Your task to perform on an android device: turn on airplane mode Image 0: 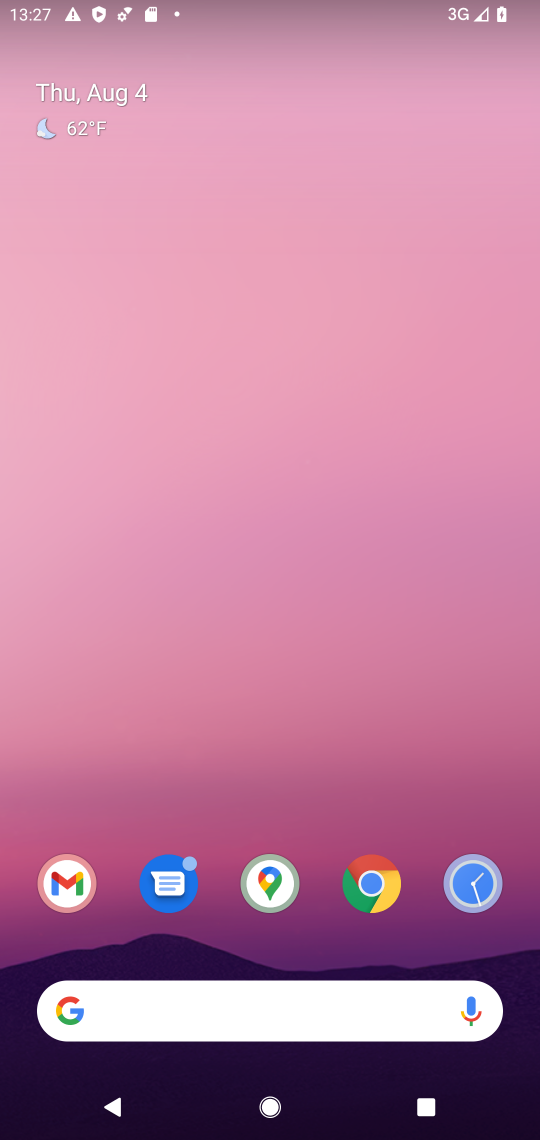
Step 0: drag from (288, 933) to (287, 131)
Your task to perform on an android device: turn on airplane mode Image 1: 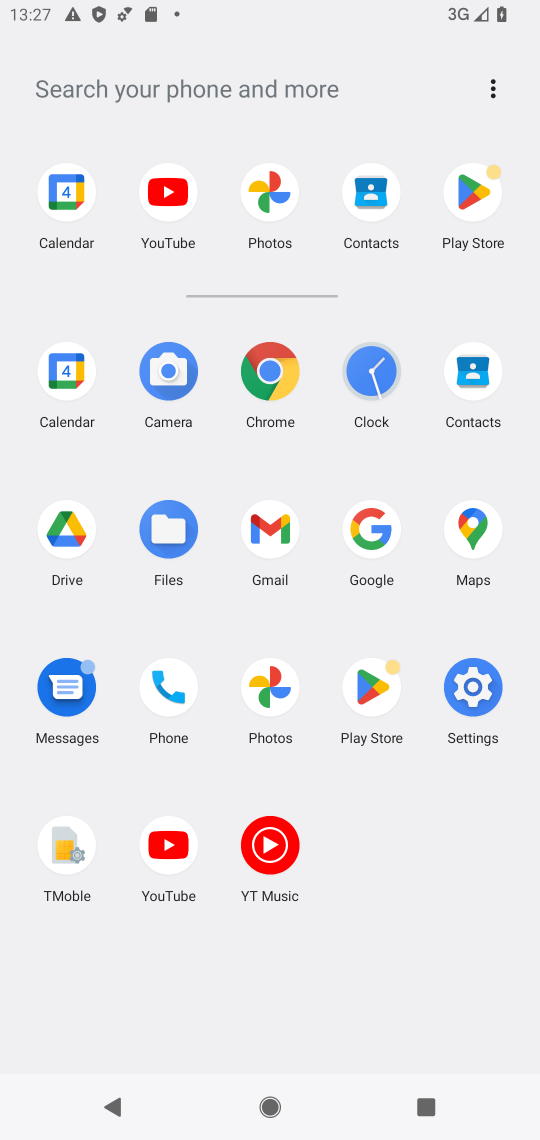
Step 1: click (462, 671)
Your task to perform on an android device: turn on airplane mode Image 2: 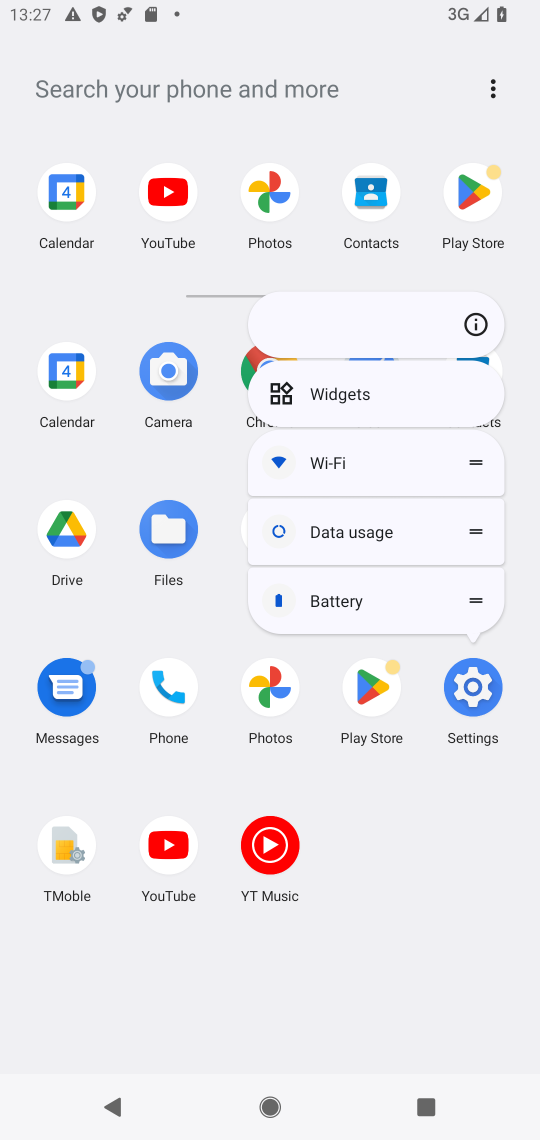
Step 2: click (478, 326)
Your task to perform on an android device: turn on airplane mode Image 3: 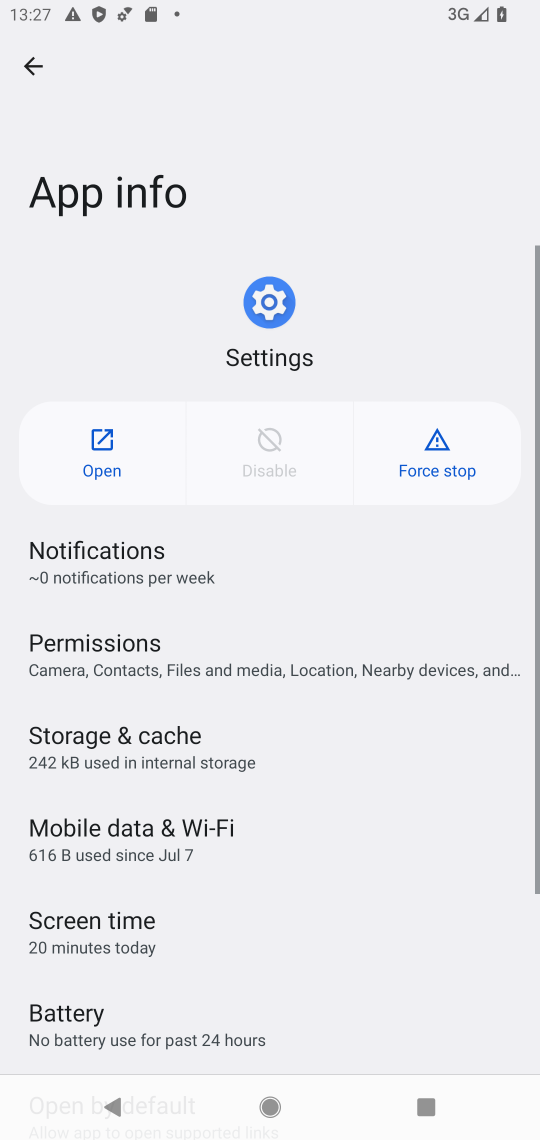
Step 3: click (100, 444)
Your task to perform on an android device: turn on airplane mode Image 4: 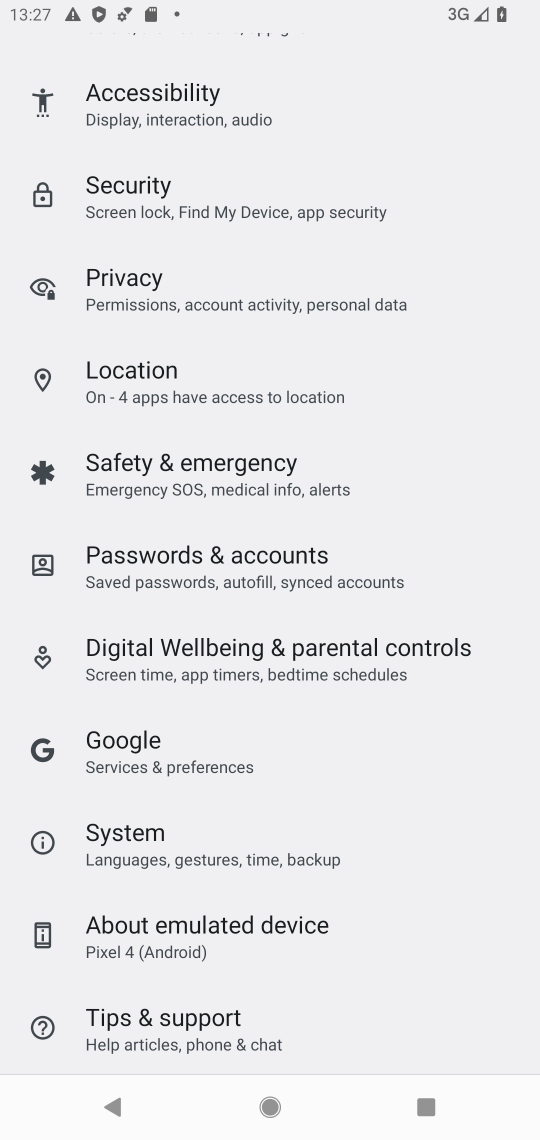
Step 4: drag from (200, 358) to (357, 1056)
Your task to perform on an android device: turn on airplane mode Image 5: 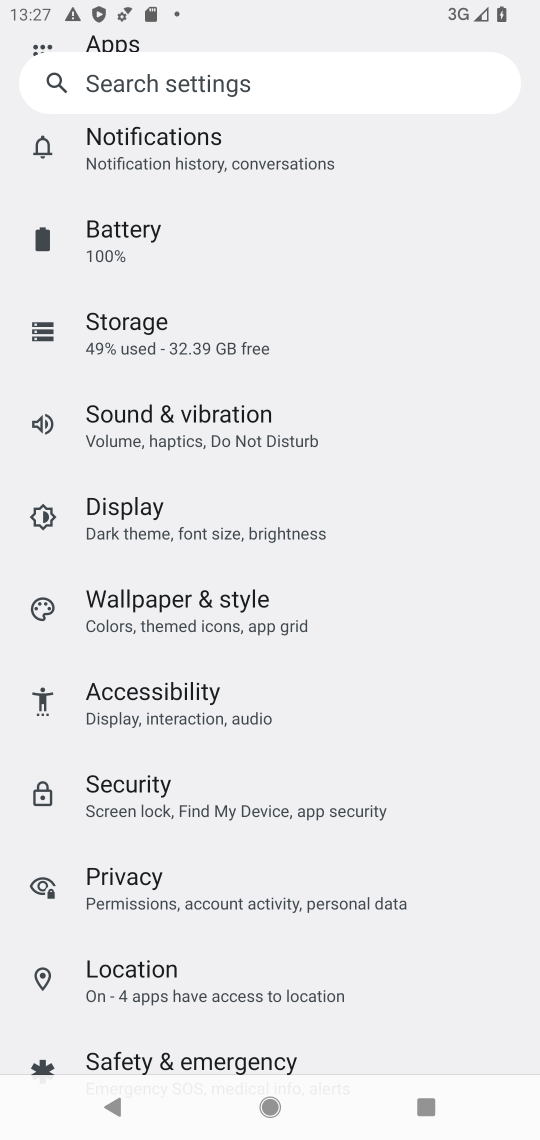
Step 5: drag from (224, 382) to (421, 1091)
Your task to perform on an android device: turn on airplane mode Image 6: 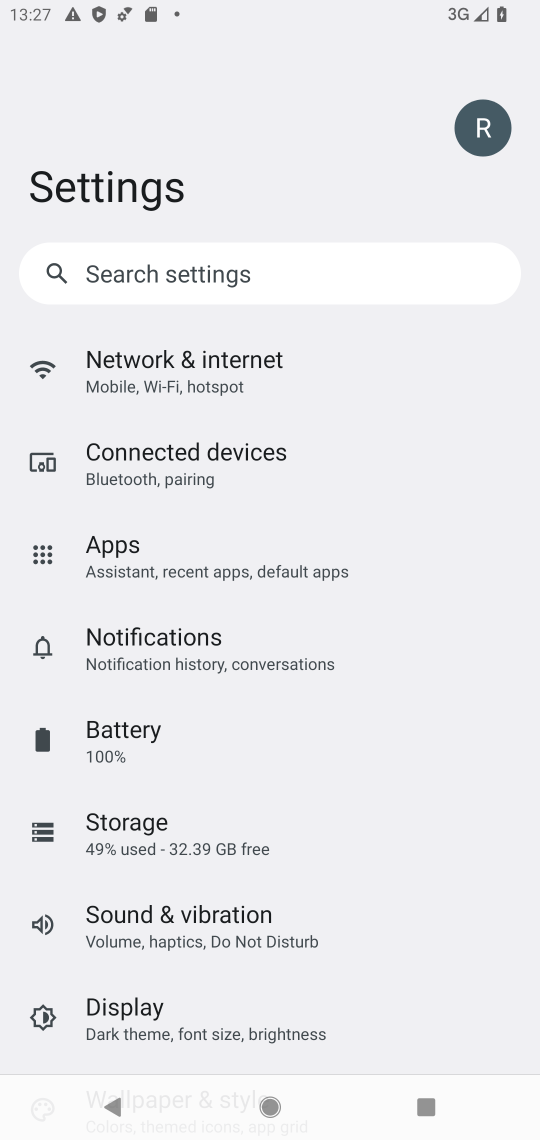
Step 6: click (198, 374)
Your task to perform on an android device: turn on airplane mode Image 7: 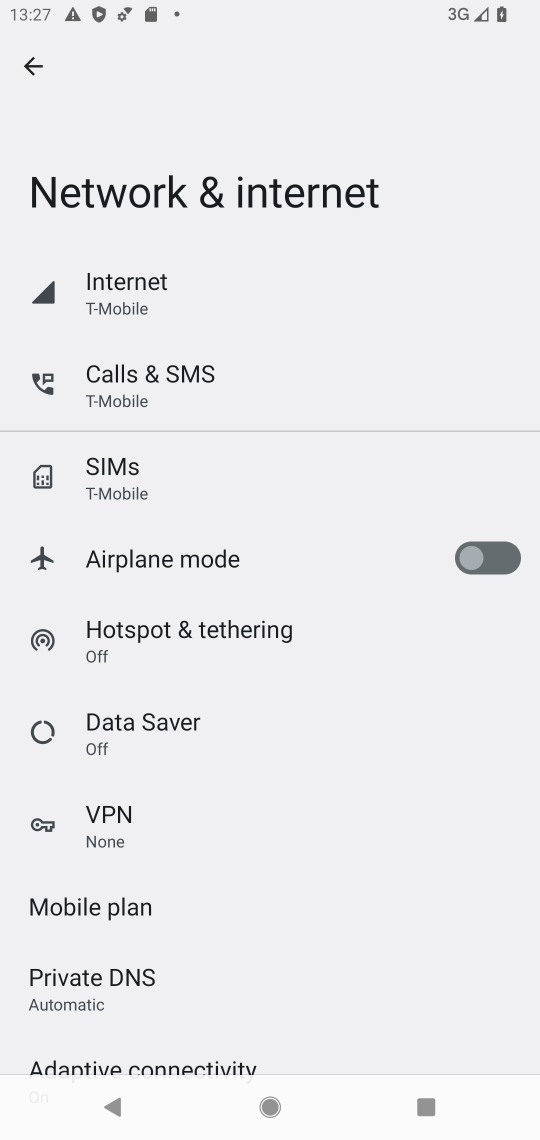
Step 7: click (360, 560)
Your task to perform on an android device: turn on airplane mode Image 8: 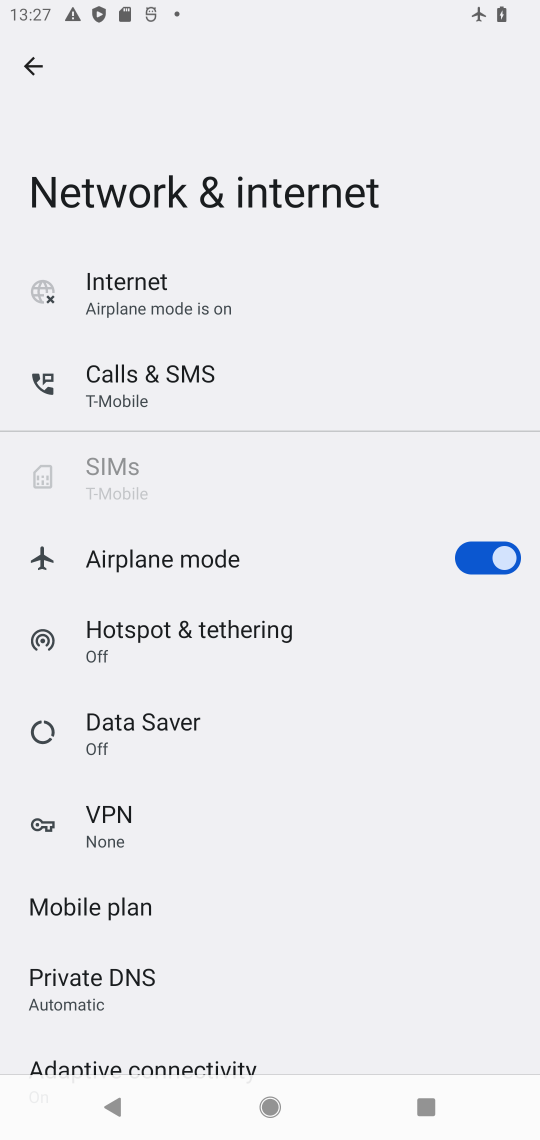
Step 8: task complete